Your task to perform on an android device: Add "dell xps" to the cart on target.com, then select checkout. Image 0: 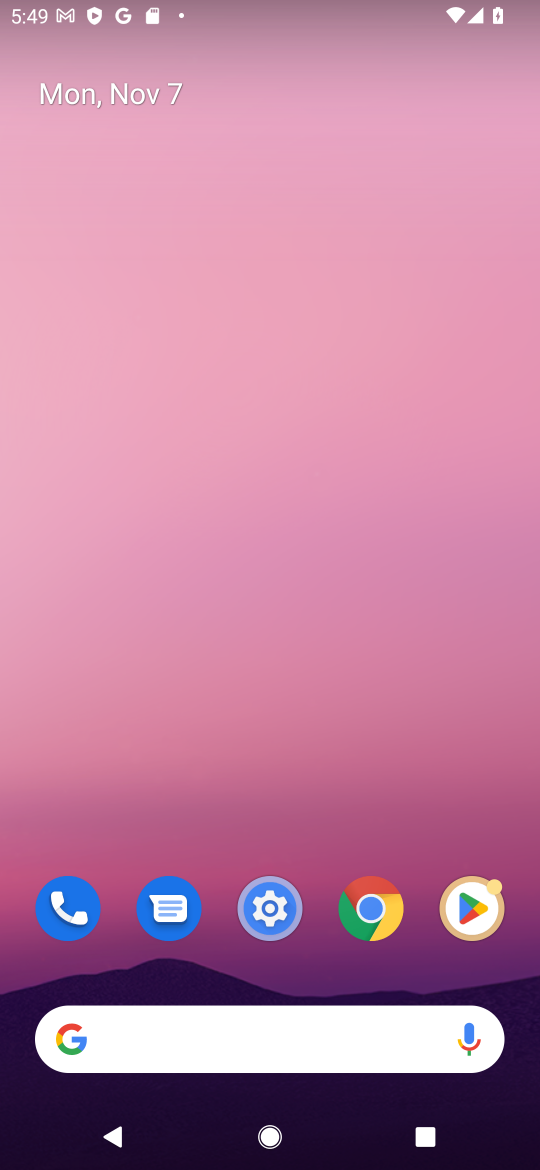
Step 0: click (234, 1058)
Your task to perform on an android device: Add "dell xps" to the cart on target.com, then select checkout. Image 1: 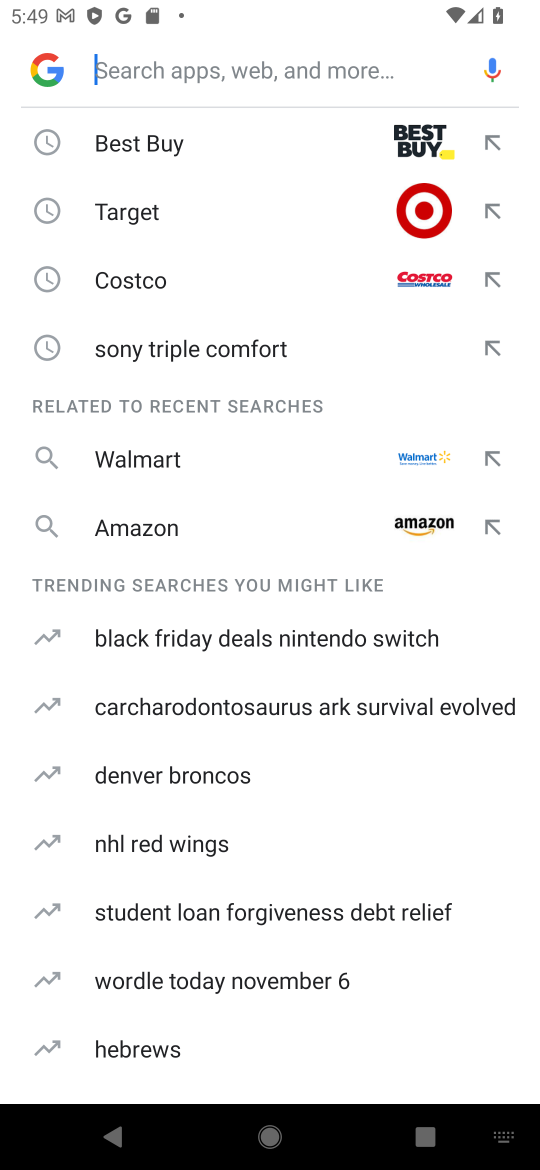
Step 1: click (233, 198)
Your task to perform on an android device: Add "dell xps" to the cart on target.com, then select checkout. Image 2: 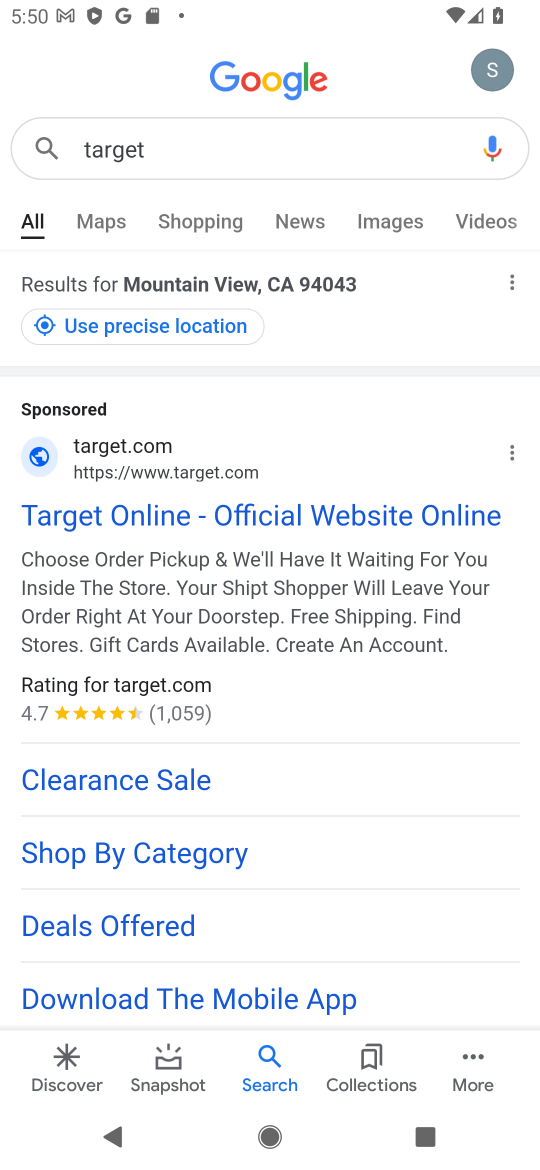
Step 2: click (162, 521)
Your task to perform on an android device: Add "dell xps" to the cart on target.com, then select checkout. Image 3: 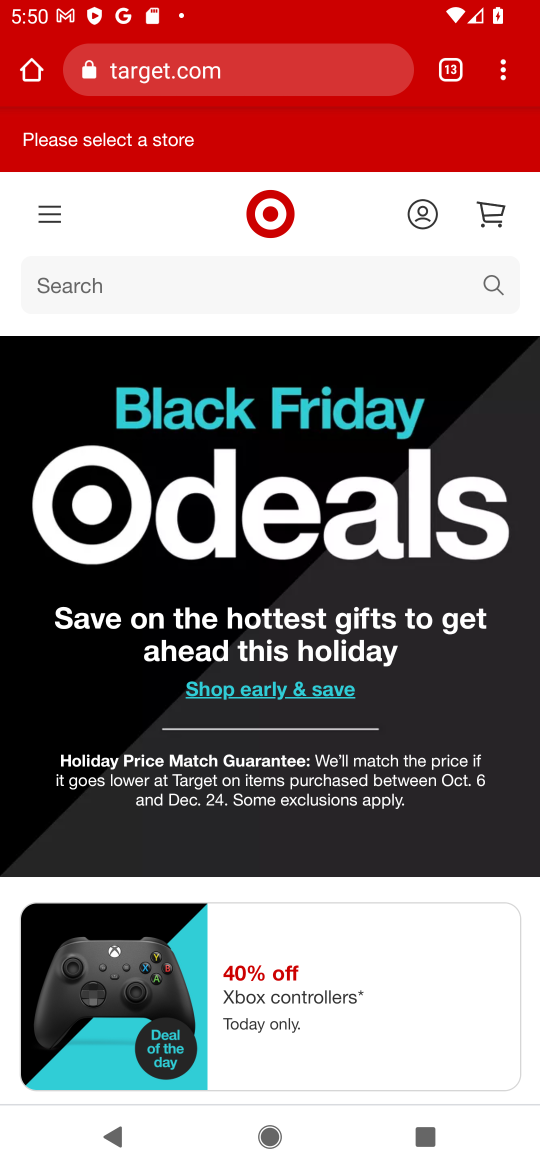
Step 3: click (302, 307)
Your task to perform on an android device: Add "dell xps" to the cart on target.com, then select checkout. Image 4: 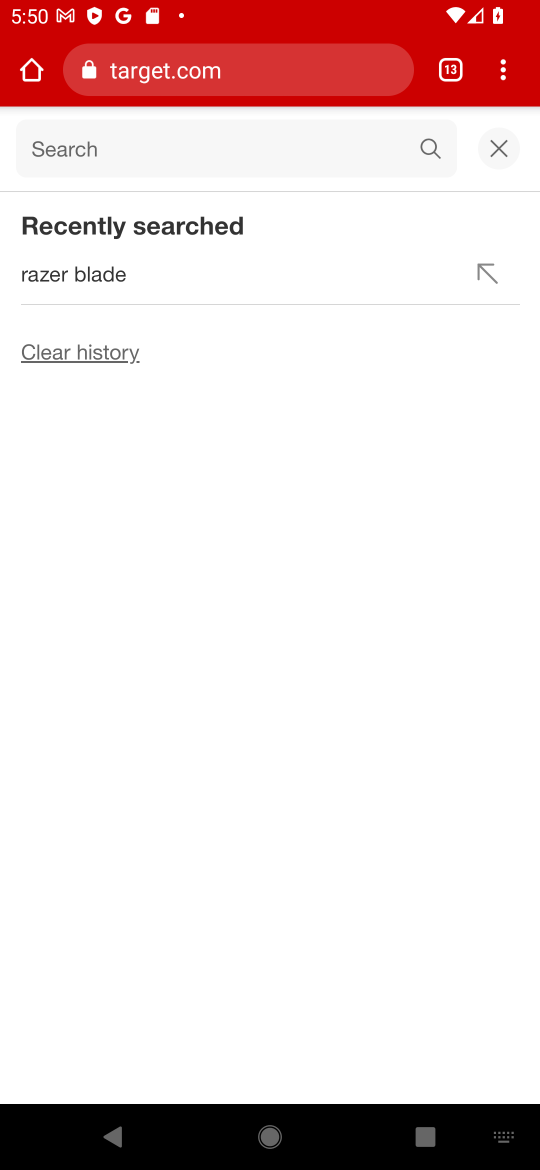
Step 4: type "dell xps"
Your task to perform on an android device: Add "dell xps" to the cart on target.com, then select checkout. Image 5: 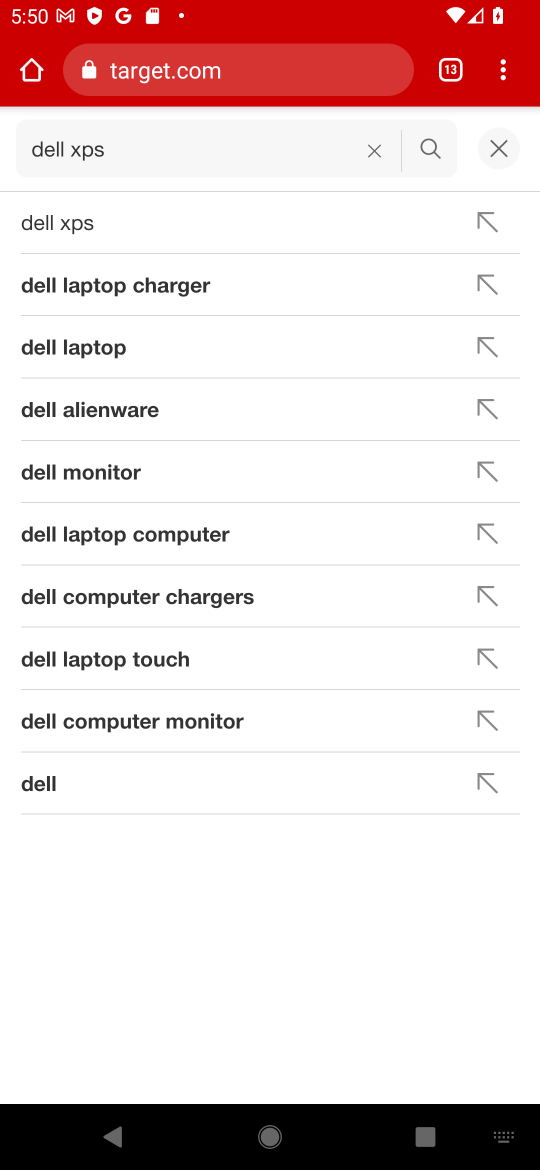
Step 5: click (125, 220)
Your task to perform on an android device: Add "dell xps" to the cart on target.com, then select checkout. Image 6: 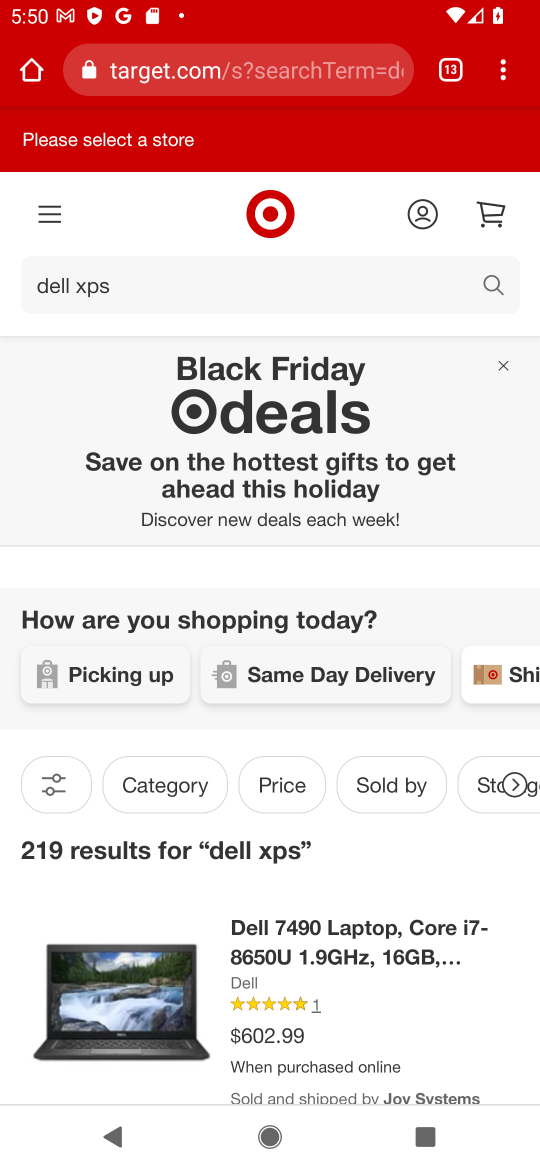
Step 6: task complete